Your task to perform on an android device: Search for pizza restaurants on Maps Image 0: 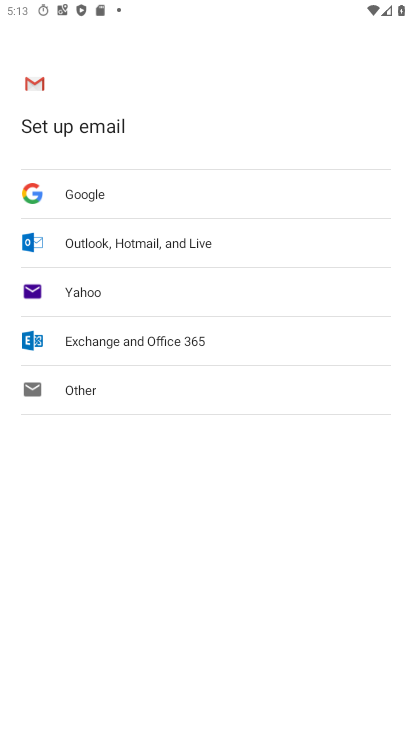
Step 0: press home button
Your task to perform on an android device: Search for pizza restaurants on Maps Image 1: 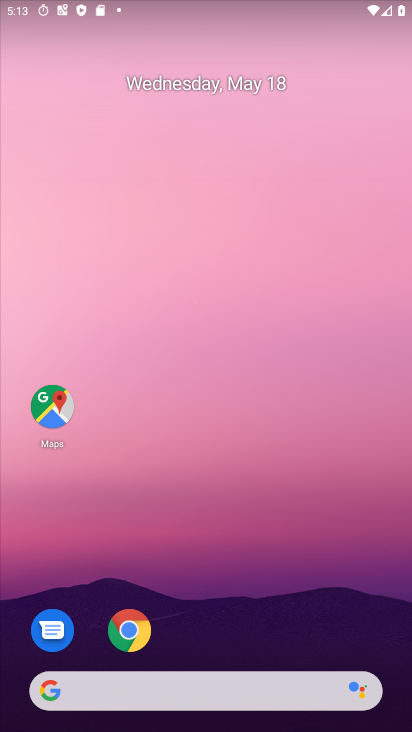
Step 1: drag from (239, 672) to (238, 348)
Your task to perform on an android device: Search for pizza restaurants on Maps Image 2: 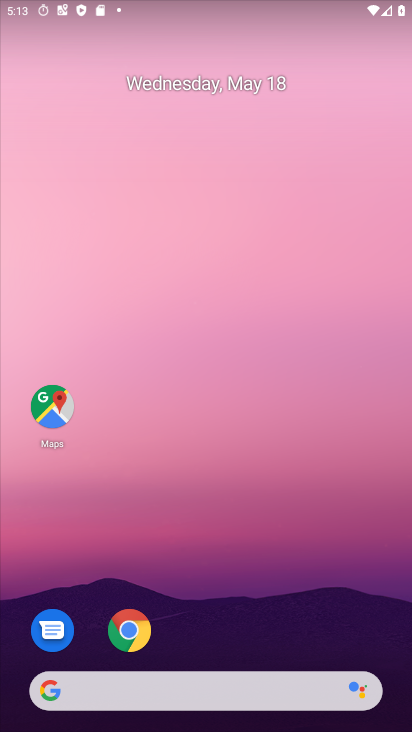
Step 2: click (41, 408)
Your task to perform on an android device: Search for pizza restaurants on Maps Image 3: 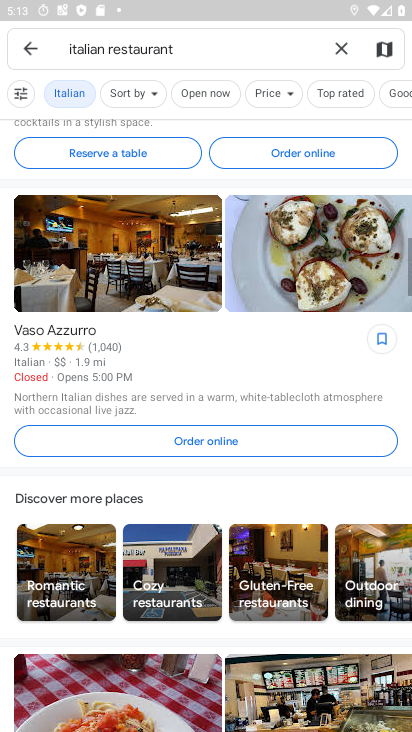
Step 3: click (339, 52)
Your task to perform on an android device: Search for pizza restaurants on Maps Image 4: 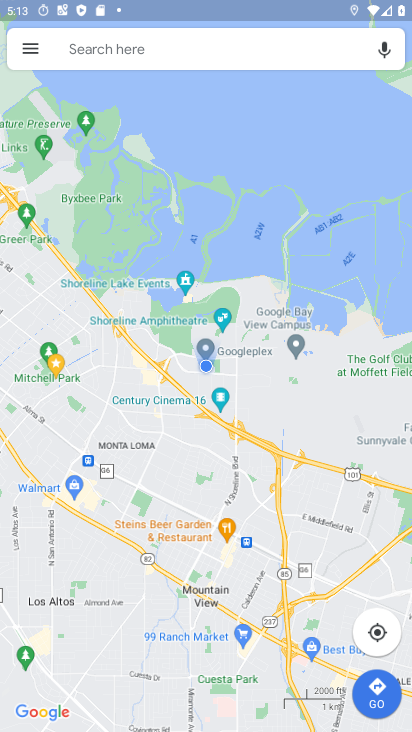
Step 4: click (182, 47)
Your task to perform on an android device: Search for pizza restaurants on Maps Image 5: 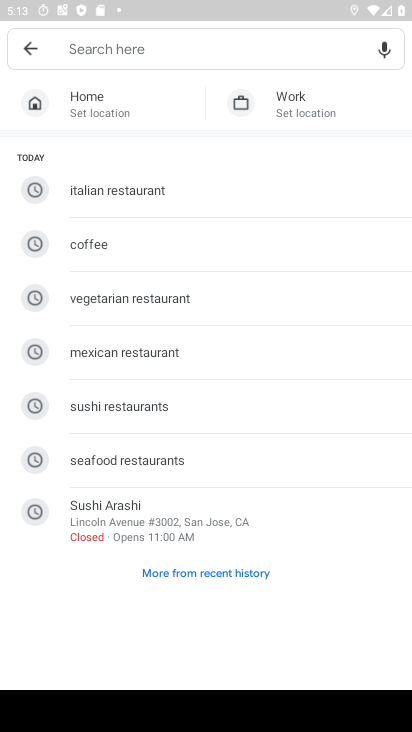
Step 5: click (184, 575)
Your task to perform on an android device: Search for pizza restaurants on Maps Image 6: 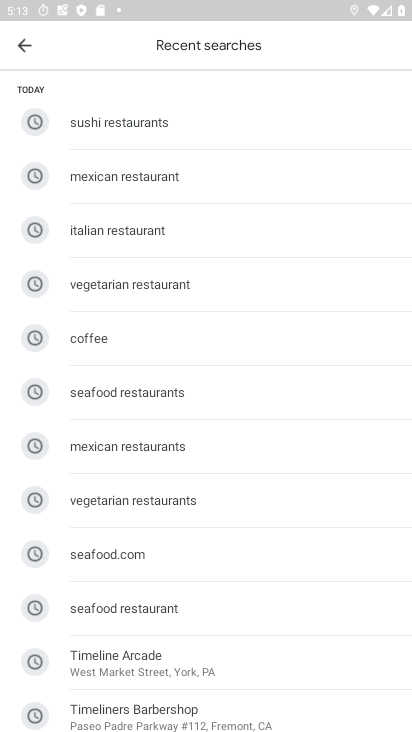
Step 6: drag from (99, 672) to (99, 326)
Your task to perform on an android device: Search for pizza restaurants on Maps Image 7: 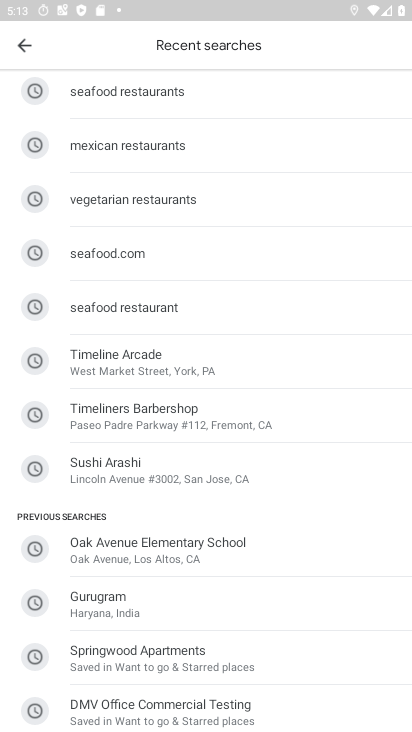
Step 7: drag from (127, 668) to (143, 356)
Your task to perform on an android device: Search for pizza restaurants on Maps Image 8: 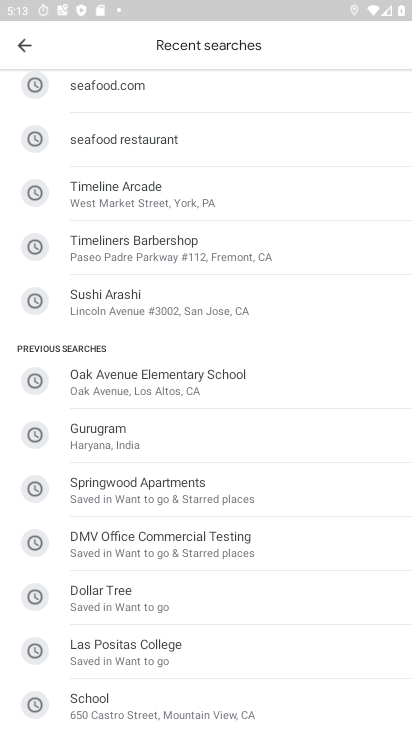
Step 8: drag from (172, 690) to (177, 361)
Your task to perform on an android device: Search for pizza restaurants on Maps Image 9: 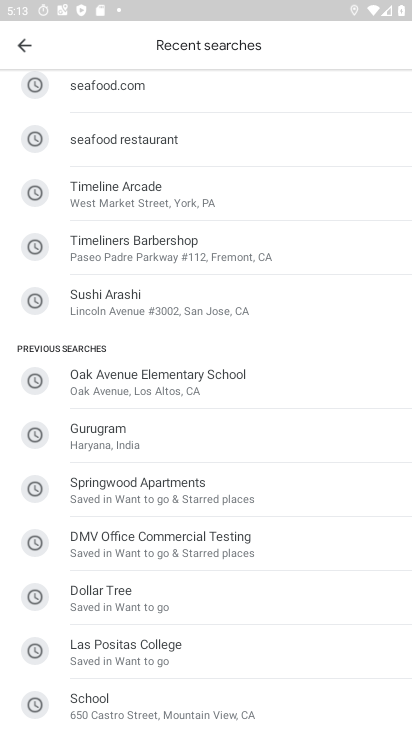
Step 9: click (18, 42)
Your task to perform on an android device: Search for pizza restaurants on Maps Image 10: 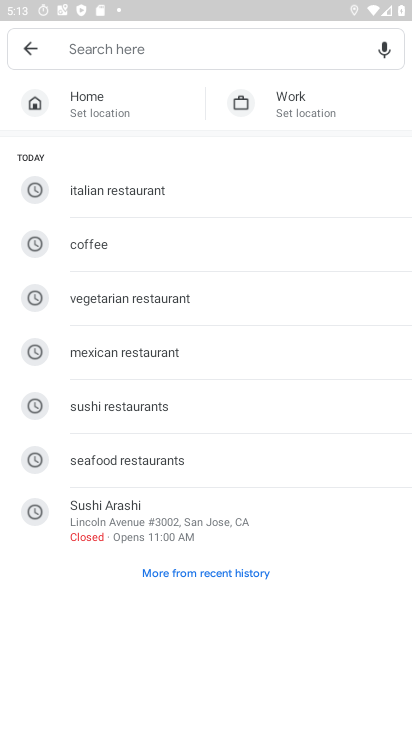
Step 10: click (104, 55)
Your task to perform on an android device: Search for pizza restaurants on Maps Image 11: 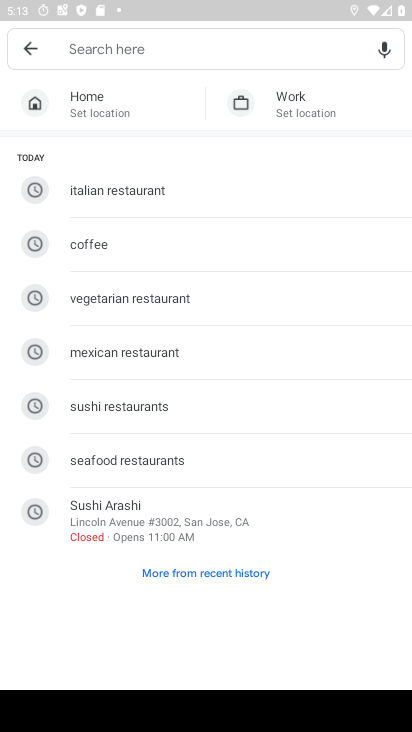
Step 11: type "pizza restaurants"
Your task to perform on an android device: Search for pizza restaurants on Maps Image 12: 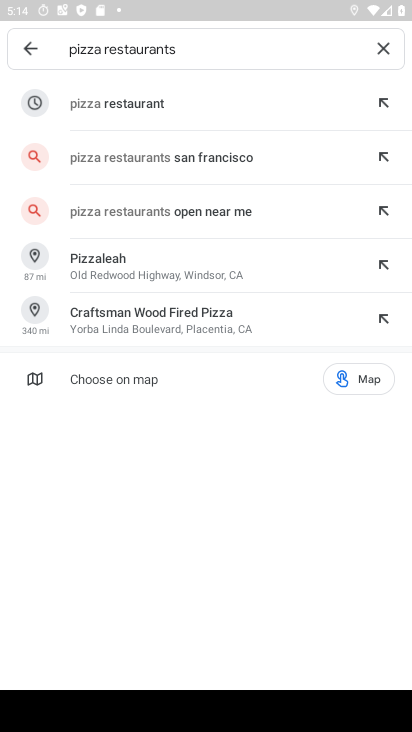
Step 12: click (109, 107)
Your task to perform on an android device: Search for pizza restaurants on Maps Image 13: 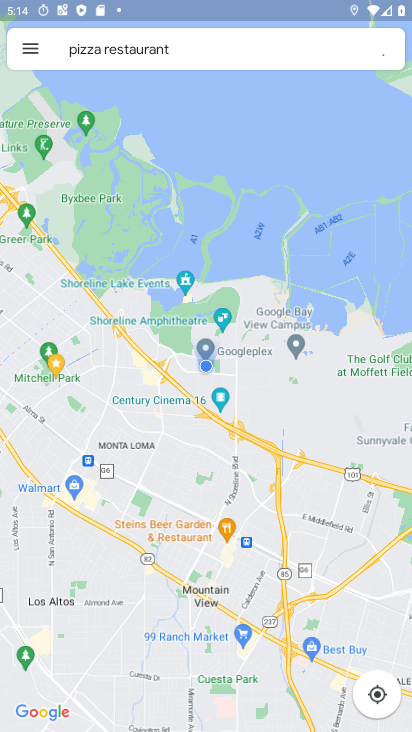
Step 13: task complete